Your task to perform on an android device: Open notification settings Image 0: 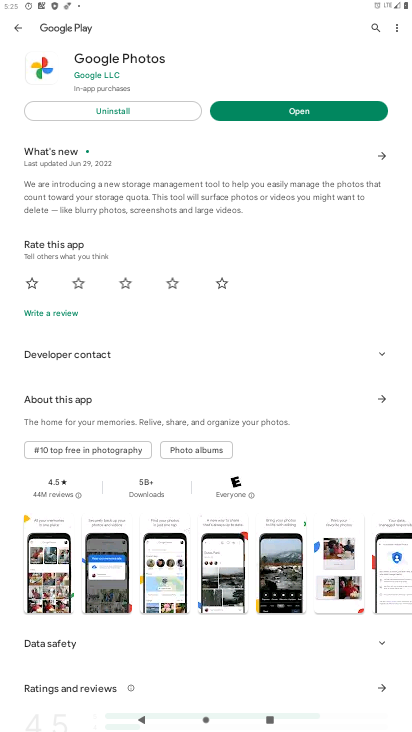
Step 0: press home button
Your task to perform on an android device: Open notification settings Image 1: 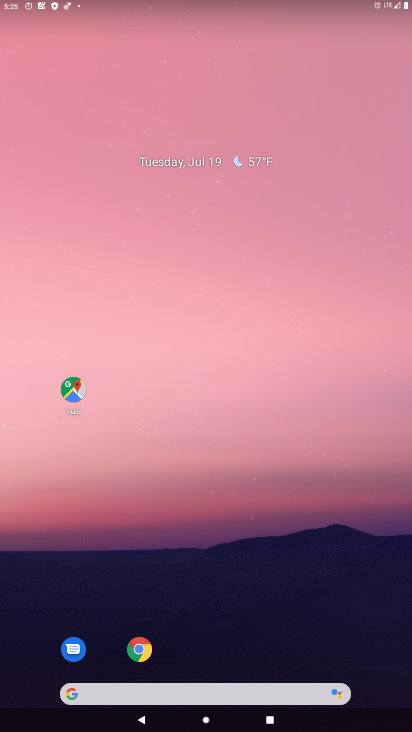
Step 1: drag from (178, 622) to (207, 128)
Your task to perform on an android device: Open notification settings Image 2: 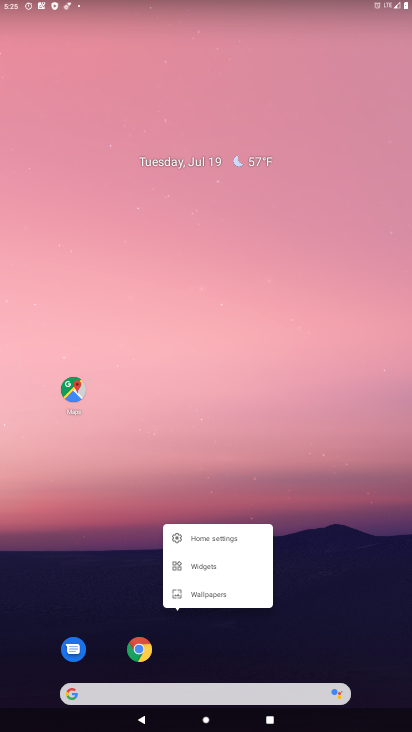
Step 2: click (288, 634)
Your task to perform on an android device: Open notification settings Image 3: 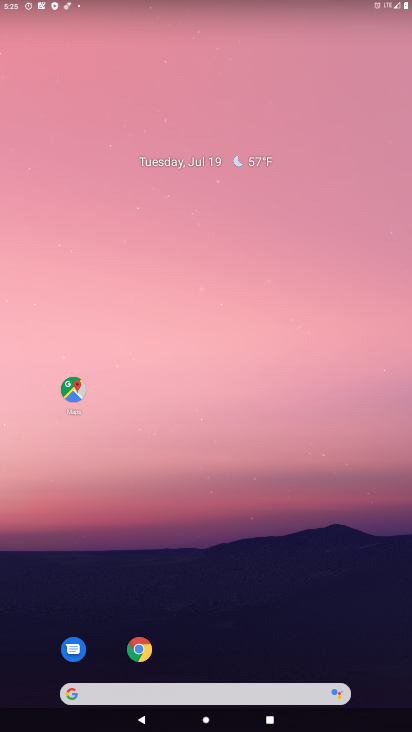
Step 3: drag from (261, 582) to (230, 63)
Your task to perform on an android device: Open notification settings Image 4: 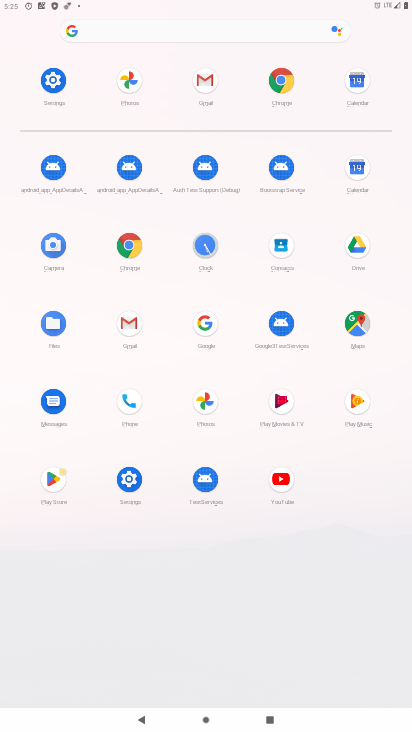
Step 4: click (54, 82)
Your task to perform on an android device: Open notification settings Image 5: 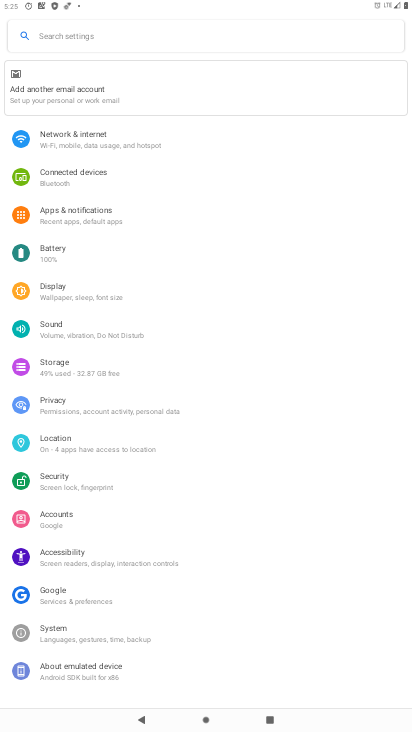
Step 5: click (101, 215)
Your task to perform on an android device: Open notification settings Image 6: 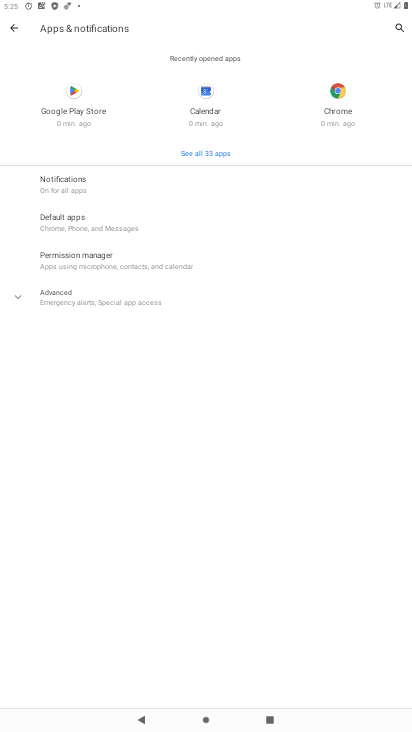
Step 6: click (74, 186)
Your task to perform on an android device: Open notification settings Image 7: 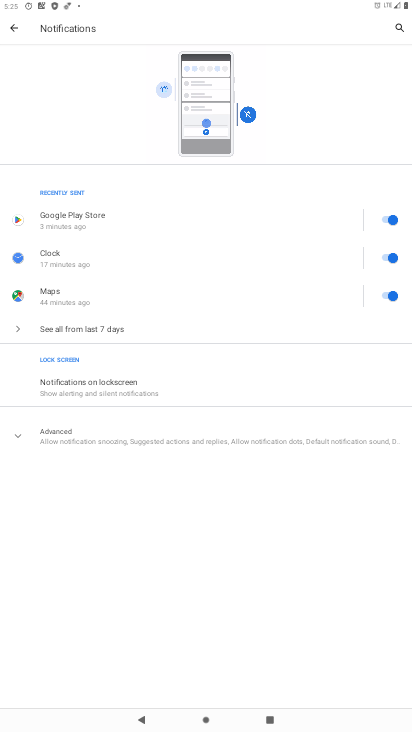
Step 7: task complete